Your task to perform on an android device: Open internet settings Image 0: 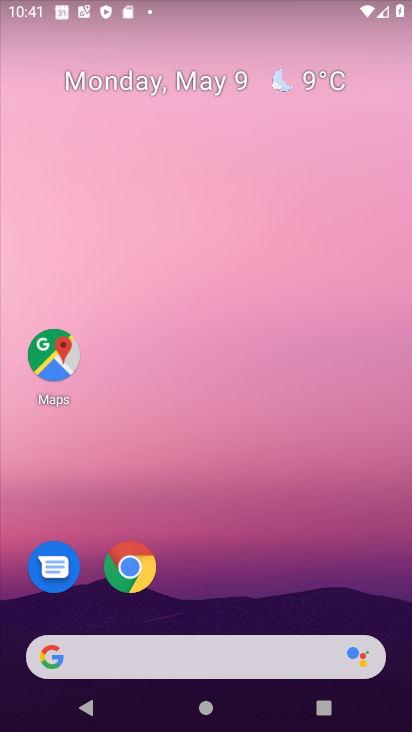
Step 0: drag from (210, 603) to (251, 49)
Your task to perform on an android device: Open internet settings Image 1: 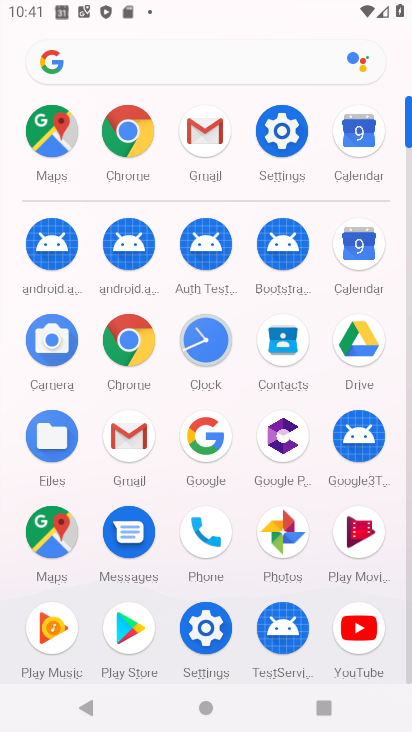
Step 1: click (281, 127)
Your task to perform on an android device: Open internet settings Image 2: 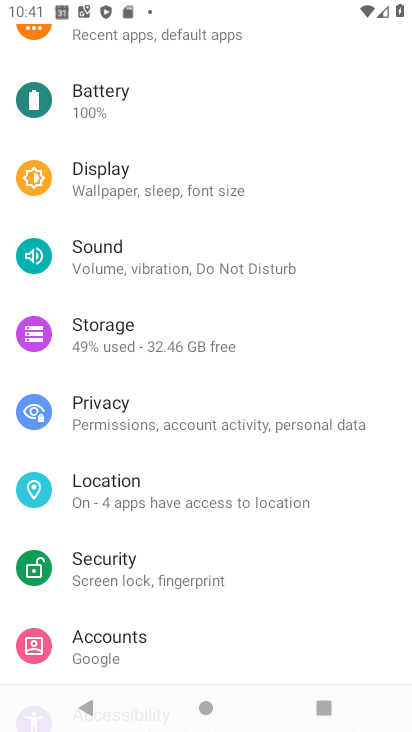
Step 2: drag from (171, 135) to (164, 611)
Your task to perform on an android device: Open internet settings Image 3: 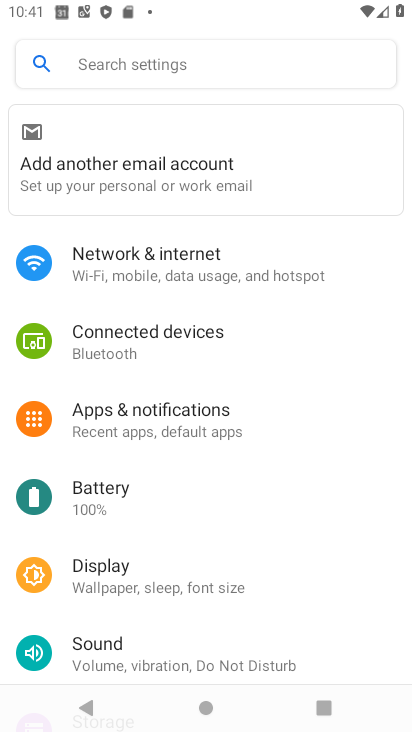
Step 3: click (229, 260)
Your task to perform on an android device: Open internet settings Image 4: 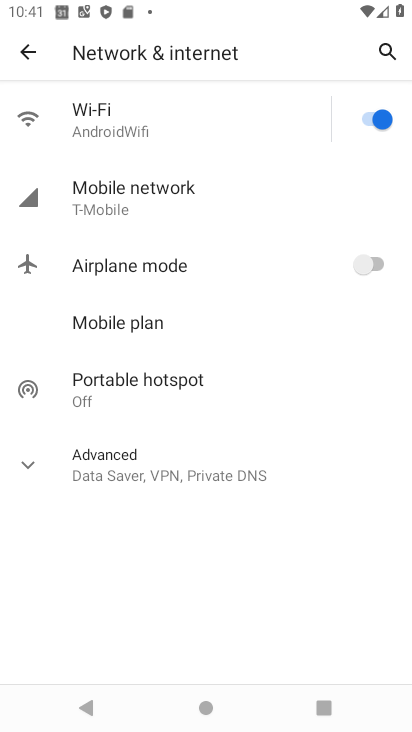
Step 4: click (33, 464)
Your task to perform on an android device: Open internet settings Image 5: 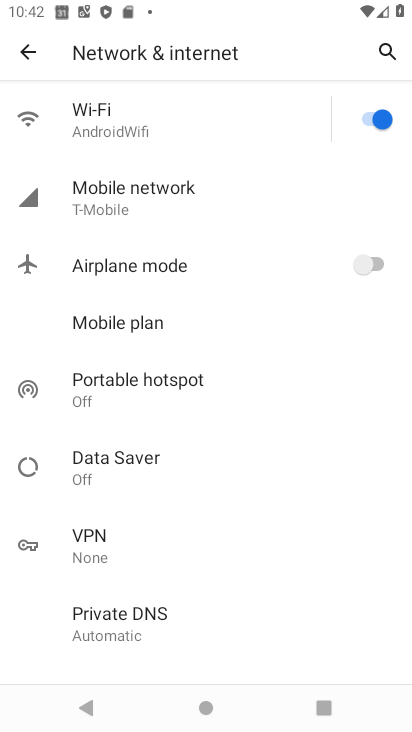
Step 5: task complete